Your task to perform on an android device: Go to sound settings Image 0: 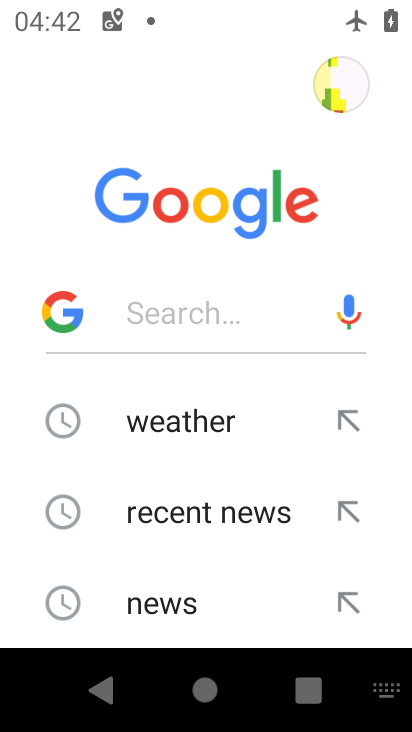
Step 0: press home button
Your task to perform on an android device: Go to sound settings Image 1: 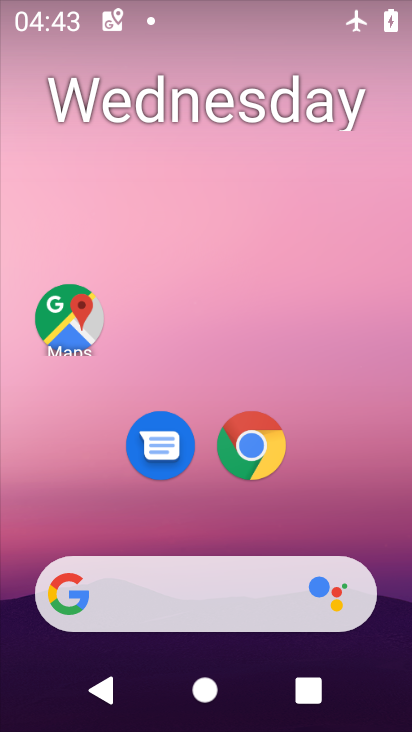
Step 1: drag from (179, 523) to (198, 6)
Your task to perform on an android device: Go to sound settings Image 2: 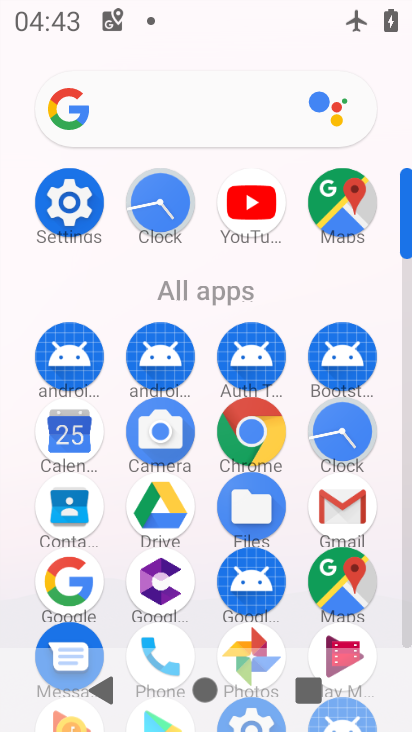
Step 2: click (74, 195)
Your task to perform on an android device: Go to sound settings Image 3: 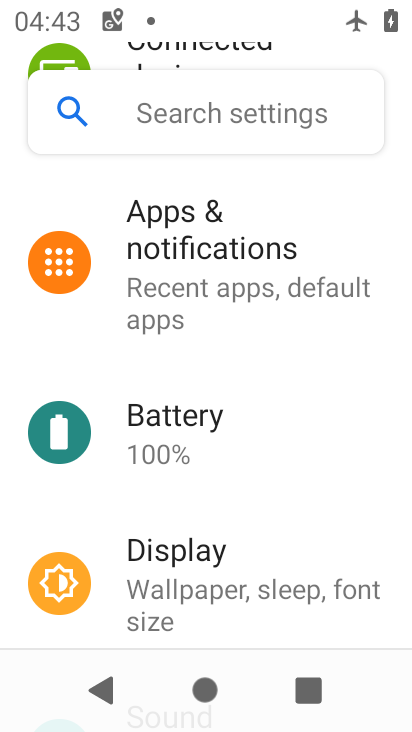
Step 3: drag from (47, 541) to (138, 175)
Your task to perform on an android device: Go to sound settings Image 4: 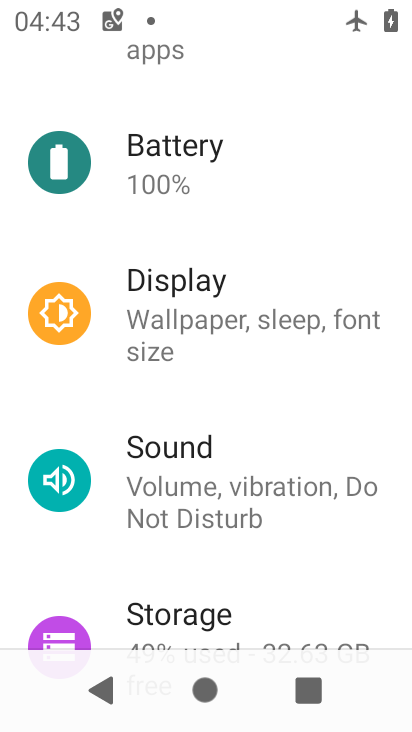
Step 4: click (157, 530)
Your task to perform on an android device: Go to sound settings Image 5: 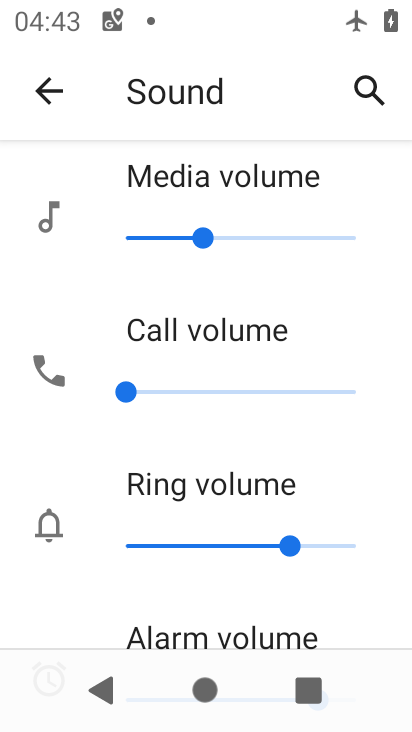
Step 5: task complete